Your task to perform on an android device: turn off notifications in google photos Image 0: 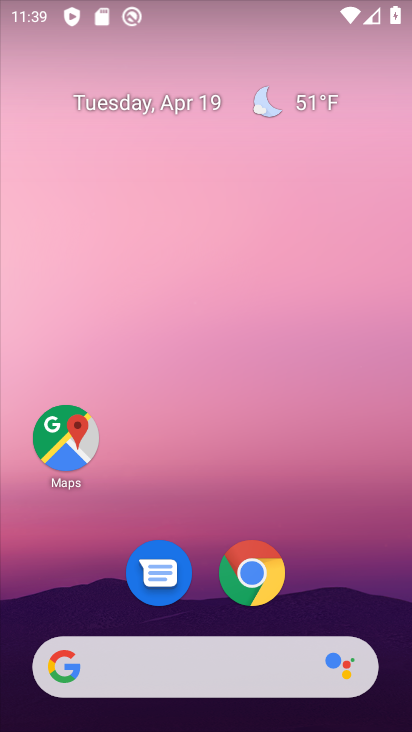
Step 0: press home button
Your task to perform on an android device: turn off notifications in google photos Image 1: 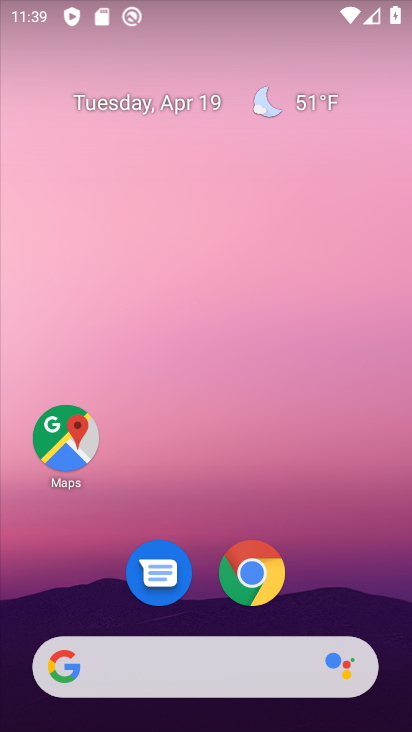
Step 1: drag from (312, 557) to (314, 114)
Your task to perform on an android device: turn off notifications in google photos Image 2: 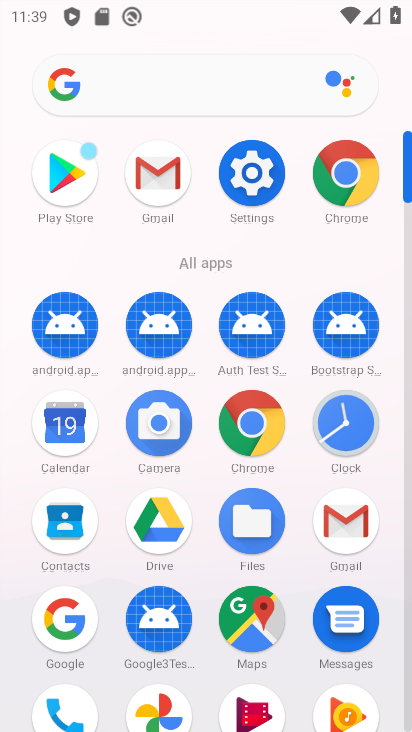
Step 2: click (161, 711)
Your task to perform on an android device: turn off notifications in google photos Image 3: 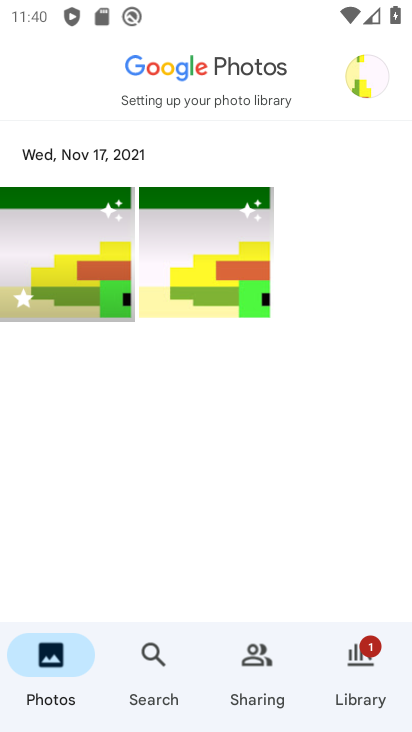
Step 3: drag from (363, 62) to (311, 166)
Your task to perform on an android device: turn off notifications in google photos Image 4: 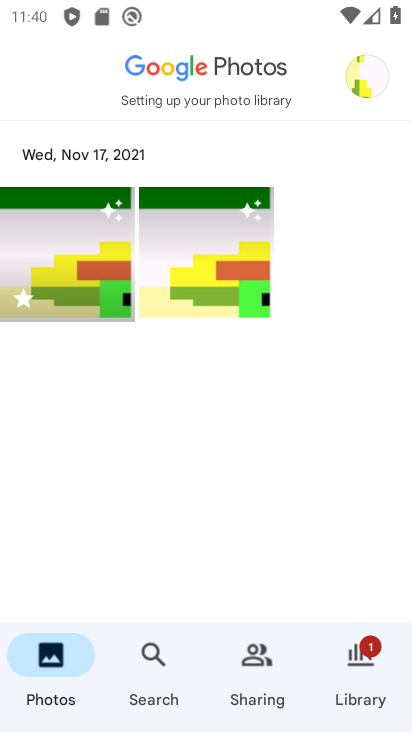
Step 4: click (366, 76)
Your task to perform on an android device: turn off notifications in google photos Image 5: 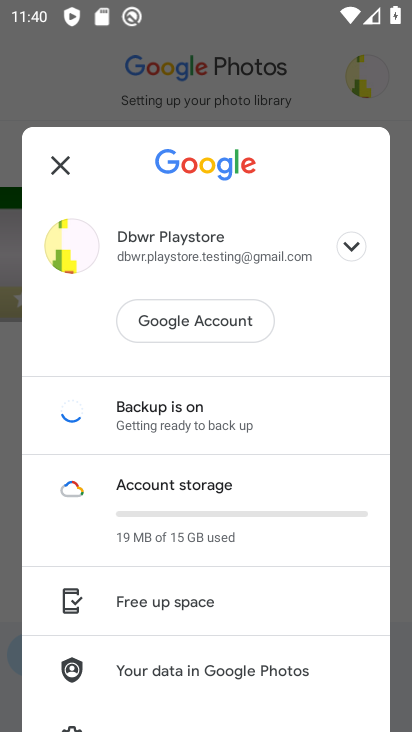
Step 5: drag from (192, 600) to (218, 264)
Your task to perform on an android device: turn off notifications in google photos Image 6: 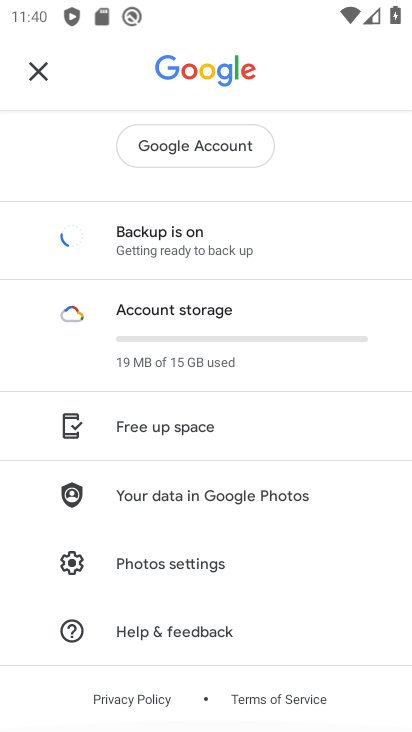
Step 6: click (188, 568)
Your task to perform on an android device: turn off notifications in google photos Image 7: 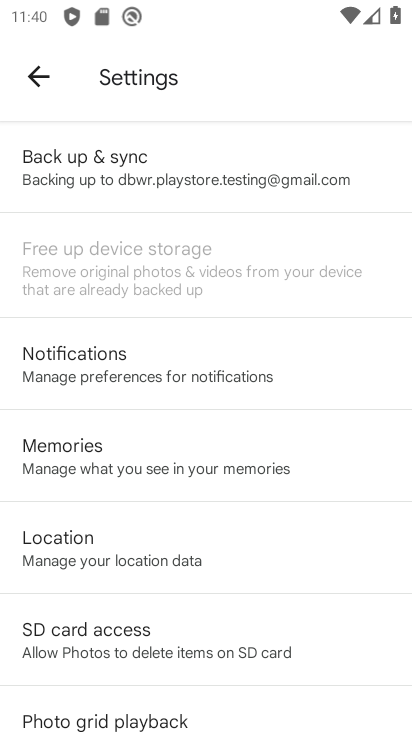
Step 7: click (163, 348)
Your task to perform on an android device: turn off notifications in google photos Image 8: 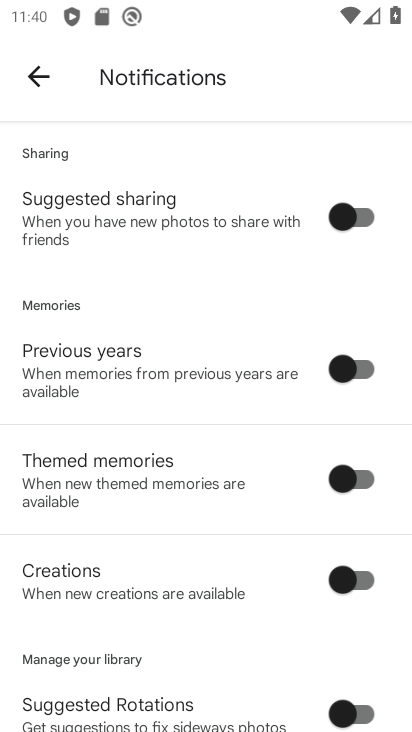
Step 8: drag from (120, 599) to (139, 250)
Your task to perform on an android device: turn off notifications in google photos Image 9: 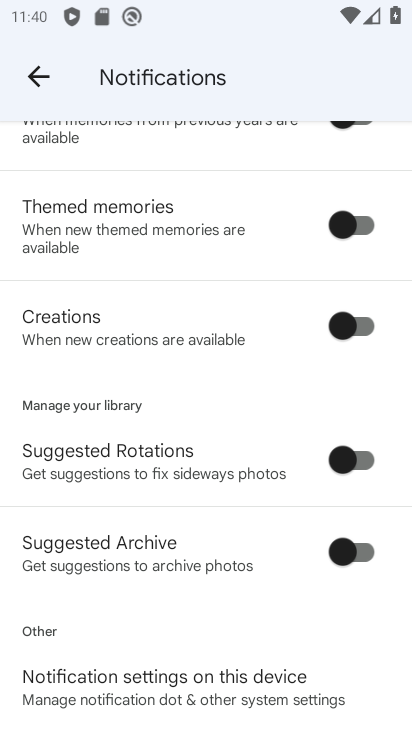
Step 9: click (103, 685)
Your task to perform on an android device: turn off notifications in google photos Image 10: 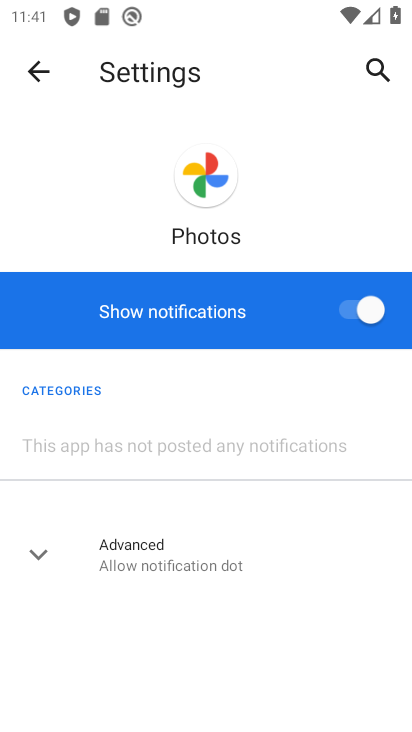
Step 10: click (355, 304)
Your task to perform on an android device: turn off notifications in google photos Image 11: 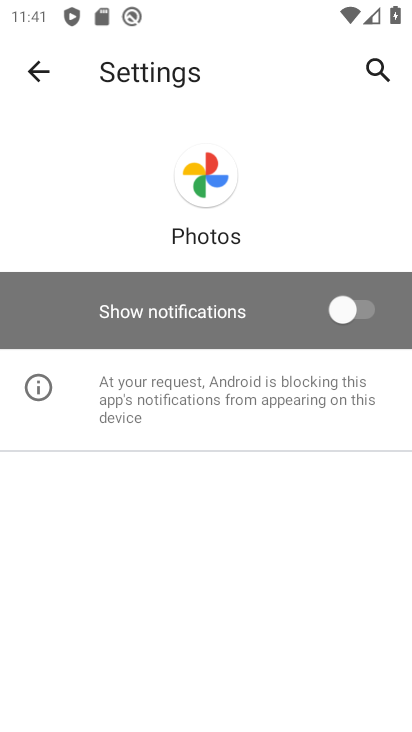
Step 11: task complete